Your task to perform on an android device: Open accessibility settings Image 0: 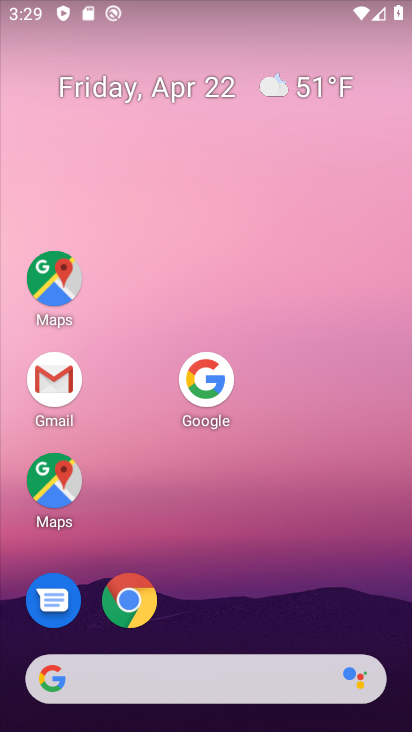
Step 0: drag from (333, 613) to (229, 1)
Your task to perform on an android device: Open accessibility settings Image 1: 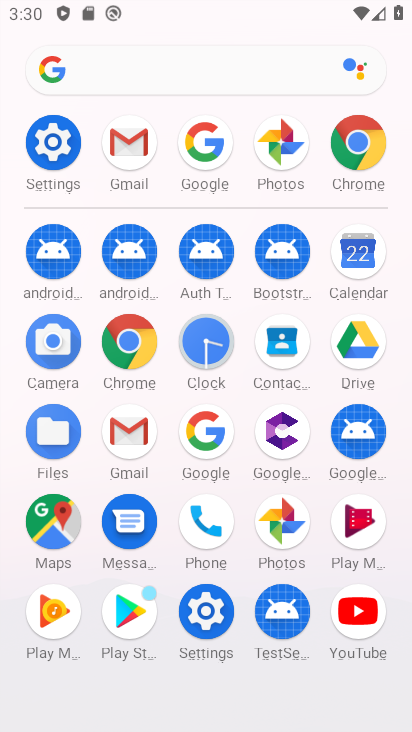
Step 1: click (212, 605)
Your task to perform on an android device: Open accessibility settings Image 2: 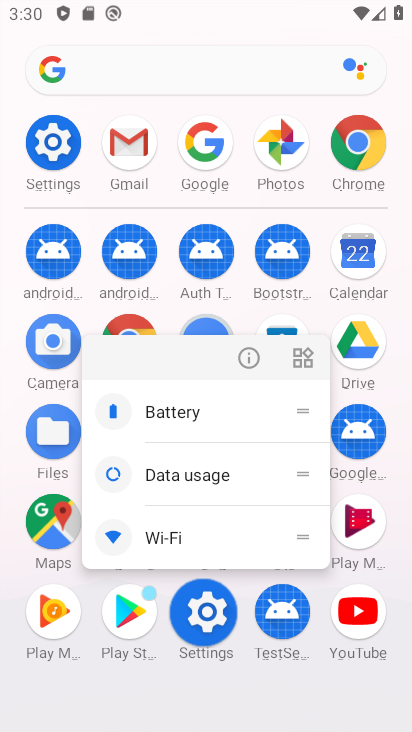
Step 2: click (214, 612)
Your task to perform on an android device: Open accessibility settings Image 3: 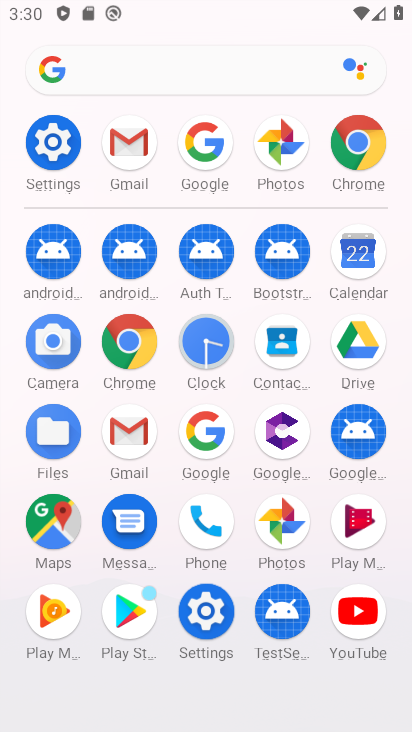
Step 3: click (214, 602)
Your task to perform on an android device: Open accessibility settings Image 4: 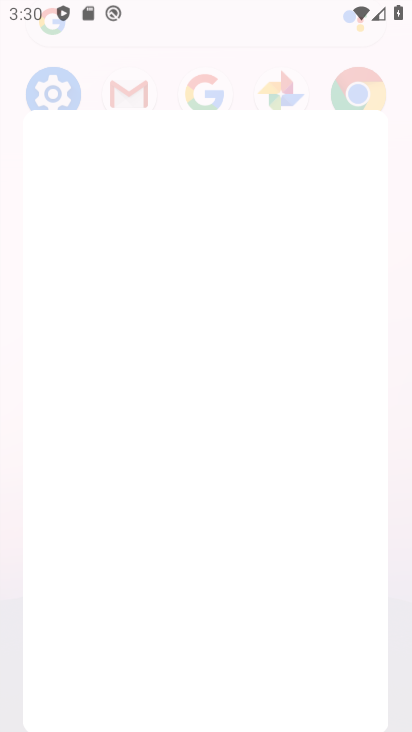
Step 4: click (202, 596)
Your task to perform on an android device: Open accessibility settings Image 5: 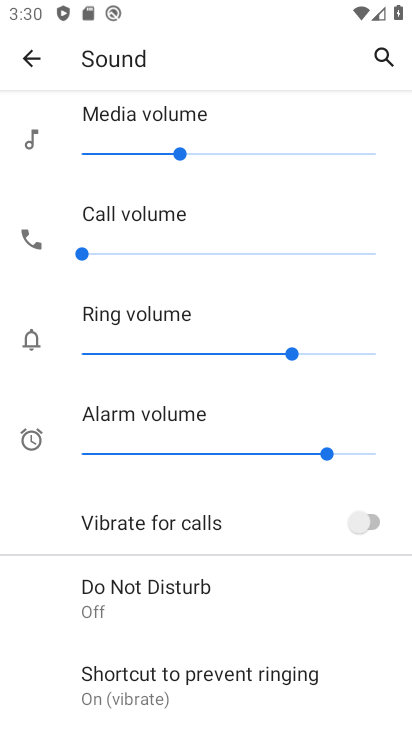
Step 5: click (25, 63)
Your task to perform on an android device: Open accessibility settings Image 6: 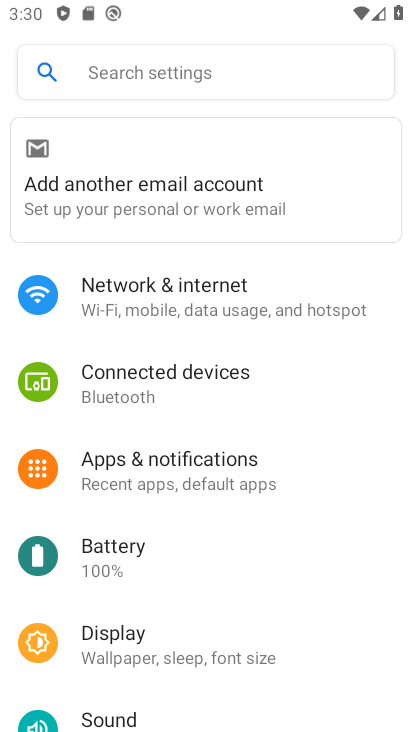
Step 6: drag from (202, 625) to (154, 244)
Your task to perform on an android device: Open accessibility settings Image 7: 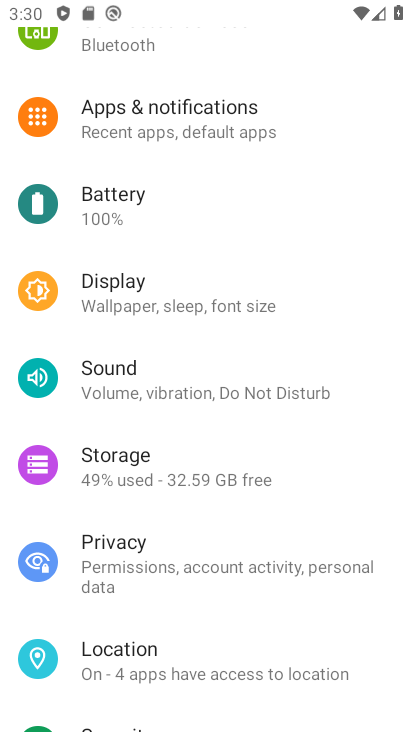
Step 7: drag from (207, 552) to (167, 246)
Your task to perform on an android device: Open accessibility settings Image 8: 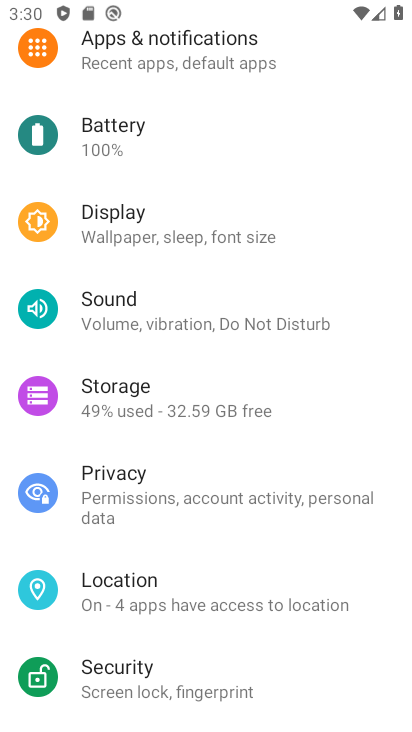
Step 8: drag from (215, 383) to (172, 198)
Your task to perform on an android device: Open accessibility settings Image 9: 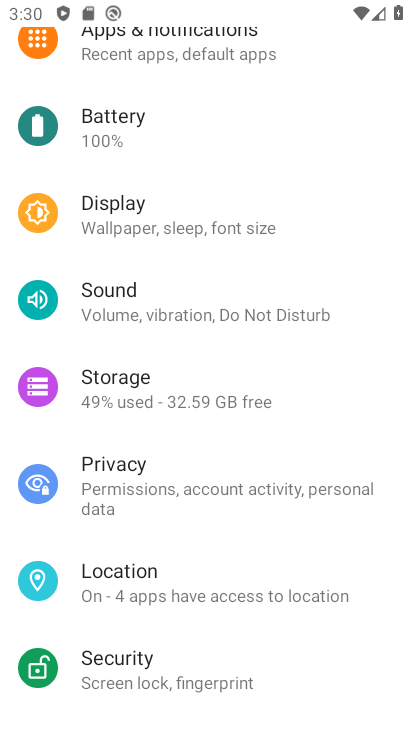
Step 9: drag from (226, 431) to (203, 95)
Your task to perform on an android device: Open accessibility settings Image 10: 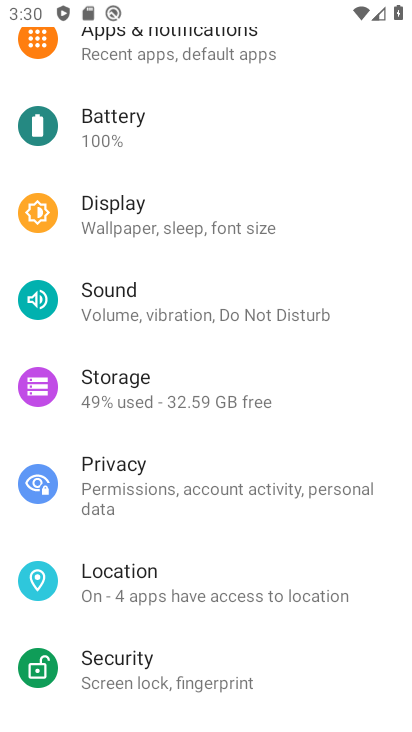
Step 10: drag from (231, 638) to (236, 346)
Your task to perform on an android device: Open accessibility settings Image 11: 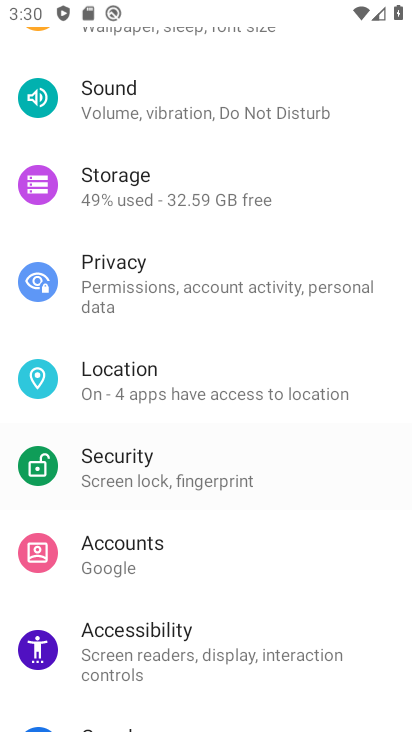
Step 11: drag from (345, 576) to (283, 253)
Your task to perform on an android device: Open accessibility settings Image 12: 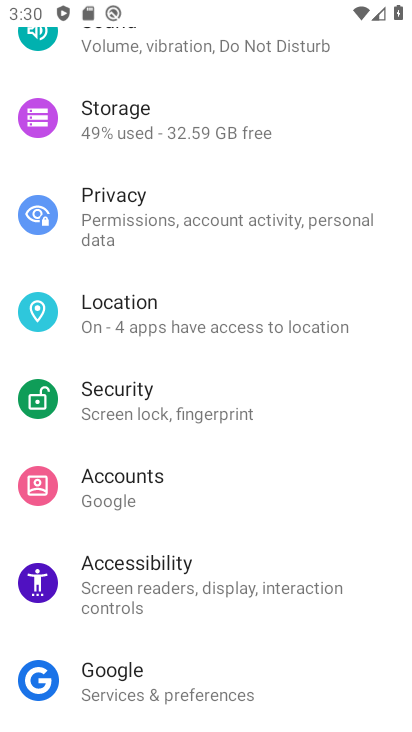
Step 12: click (119, 590)
Your task to perform on an android device: Open accessibility settings Image 13: 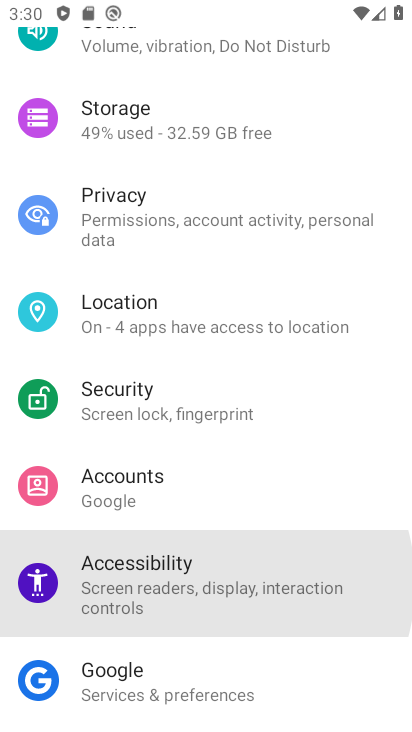
Step 13: click (119, 590)
Your task to perform on an android device: Open accessibility settings Image 14: 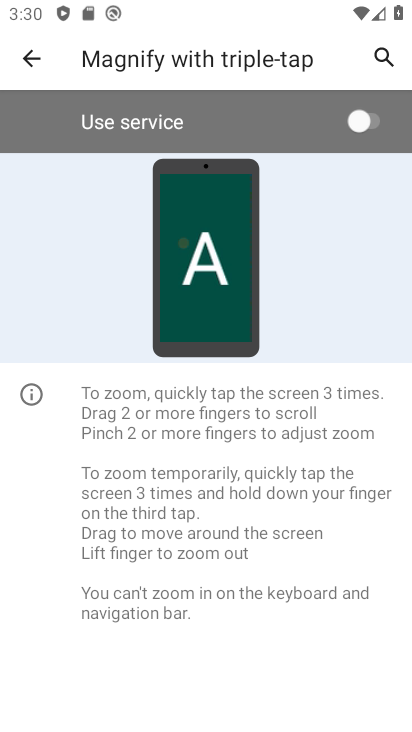
Step 14: task complete